Your task to perform on an android device: turn notification dots off Image 0: 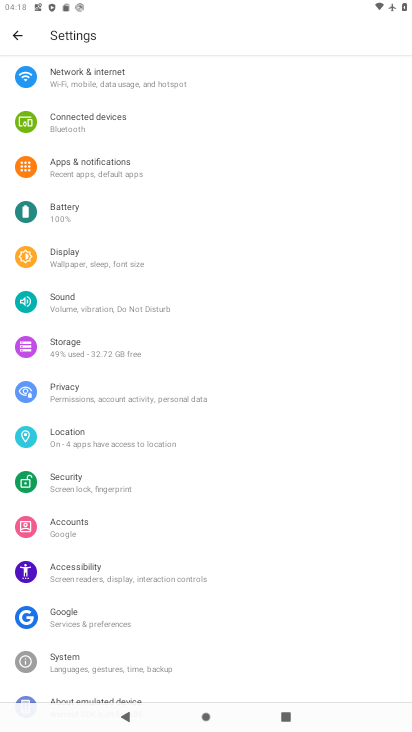
Step 0: click (92, 175)
Your task to perform on an android device: turn notification dots off Image 1: 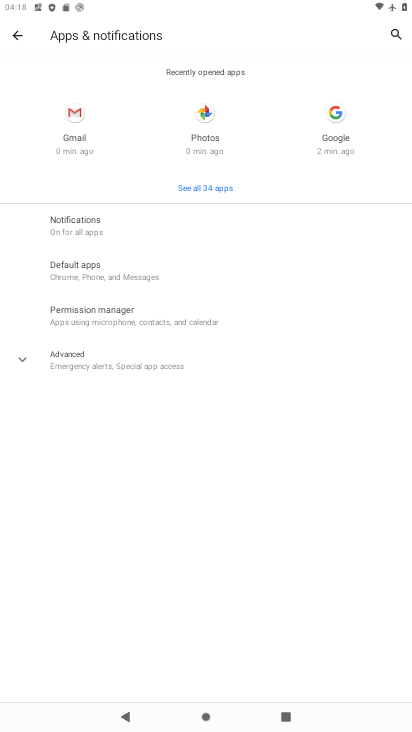
Step 1: click (106, 233)
Your task to perform on an android device: turn notification dots off Image 2: 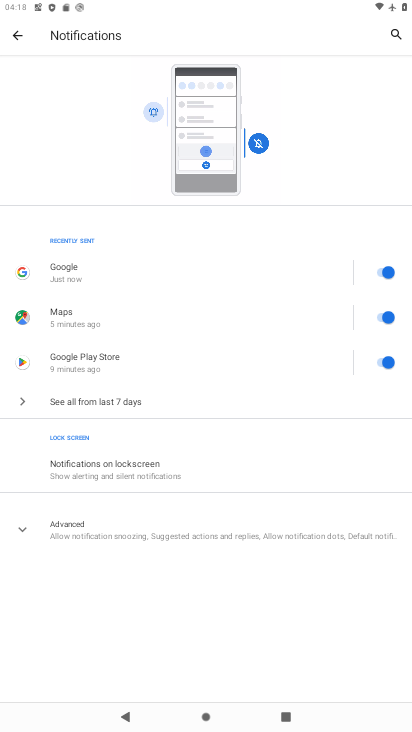
Step 2: click (119, 534)
Your task to perform on an android device: turn notification dots off Image 3: 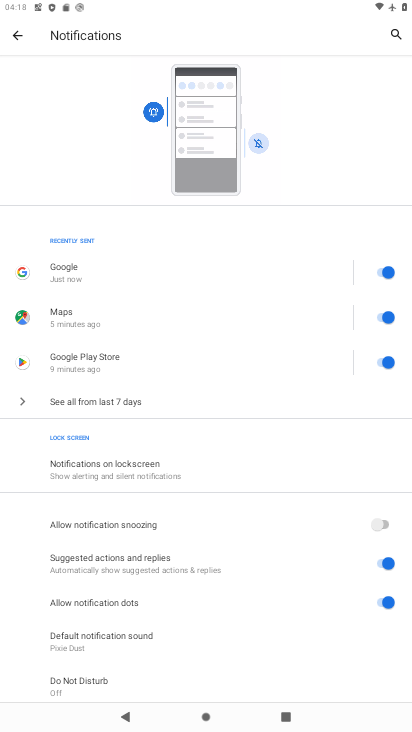
Step 3: click (392, 602)
Your task to perform on an android device: turn notification dots off Image 4: 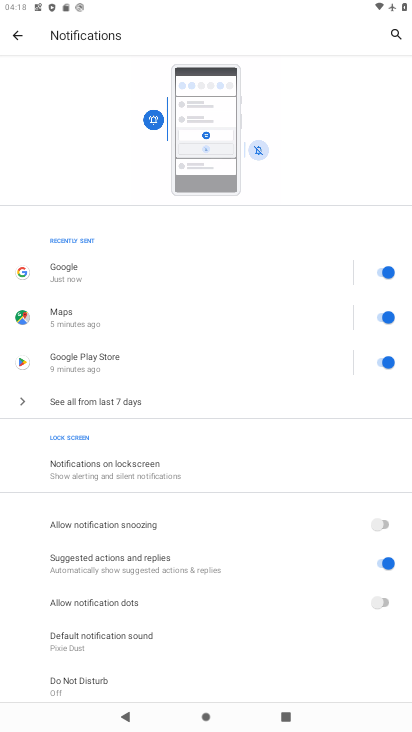
Step 4: task complete